Your task to perform on an android device: Open Amazon Image 0: 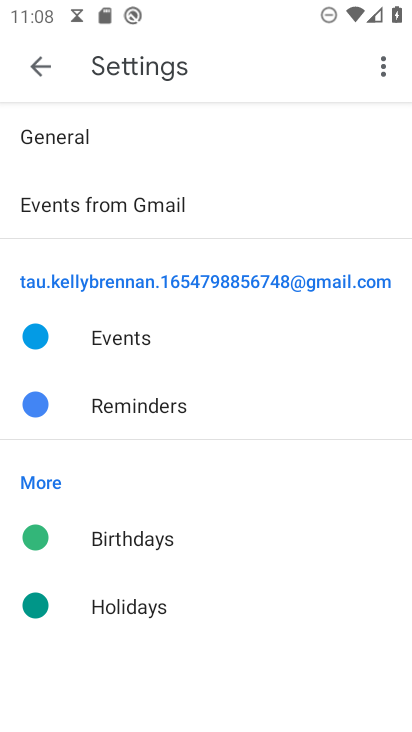
Step 0: press home button
Your task to perform on an android device: Open Amazon Image 1: 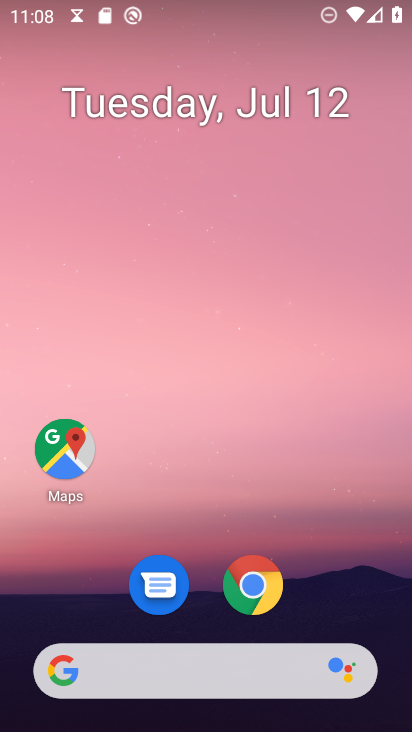
Step 1: click (257, 589)
Your task to perform on an android device: Open Amazon Image 2: 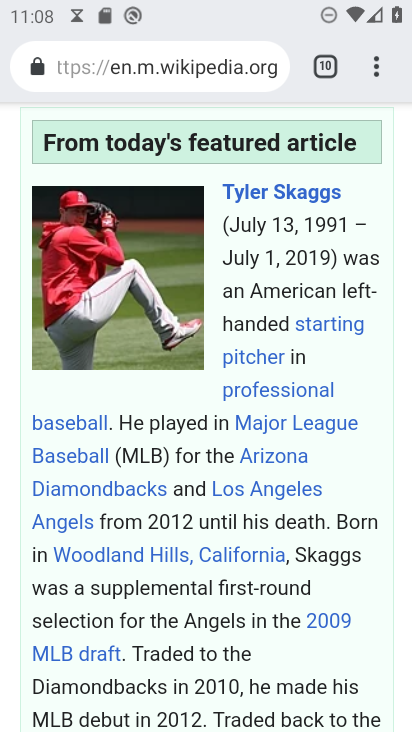
Step 2: drag from (385, 55) to (301, 138)
Your task to perform on an android device: Open Amazon Image 3: 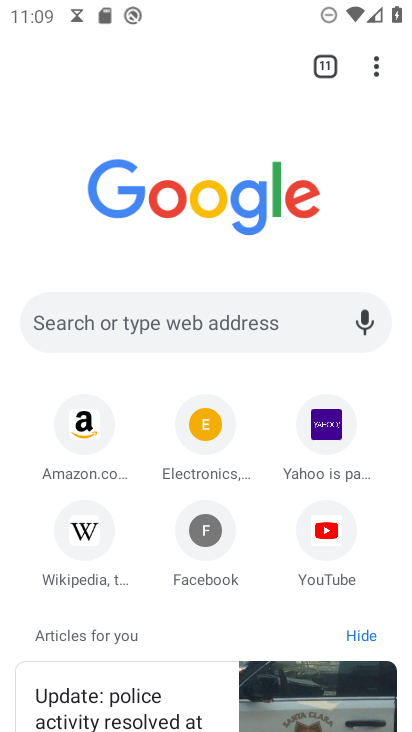
Step 3: click (80, 438)
Your task to perform on an android device: Open Amazon Image 4: 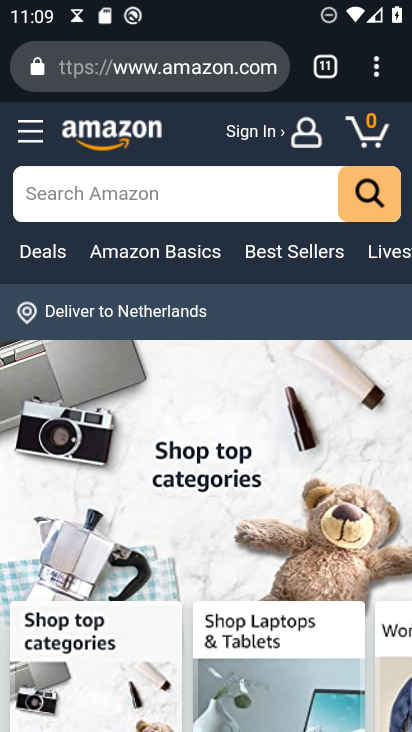
Step 4: task complete